Your task to perform on an android device: Go to Google Image 0: 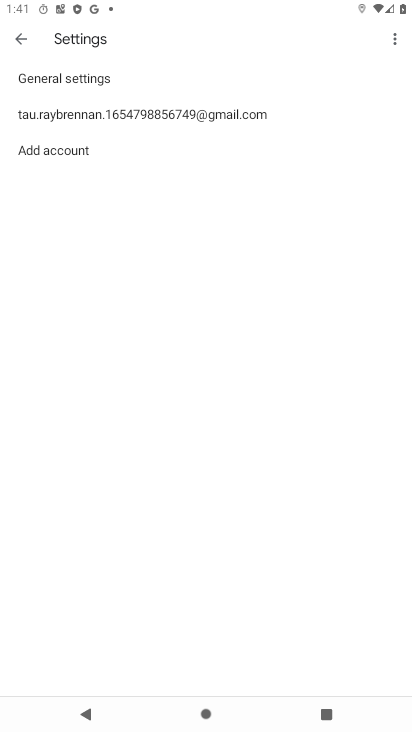
Step 0: press home button
Your task to perform on an android device: Go to Google Image 1: 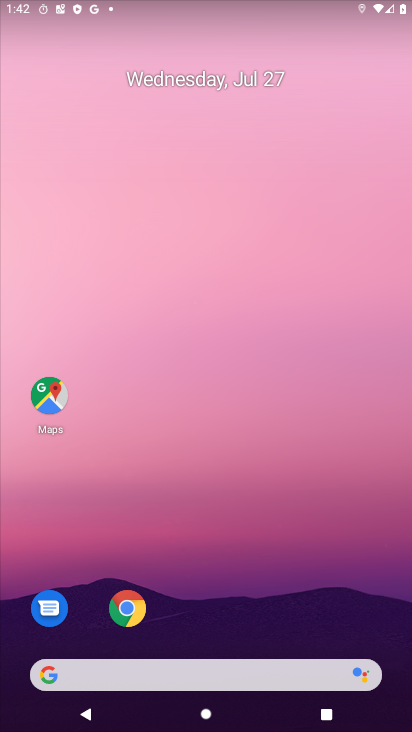
Step 1: click (223, 667)
Your task to perform on an android device: Go to Google Image 2: 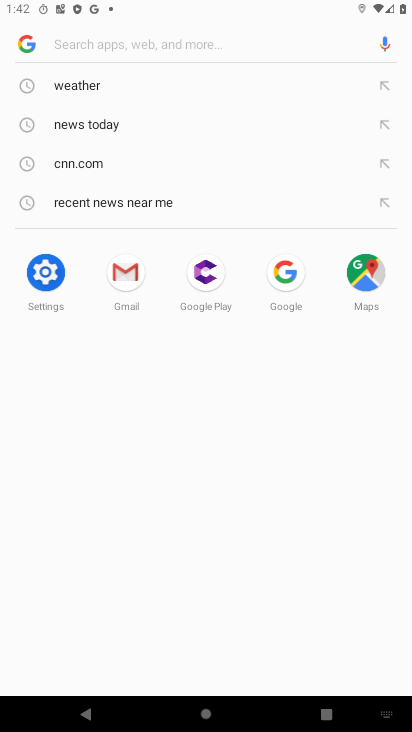
Step 2: task complete